Your task to perform on an android device: Open my contact list Image 0: 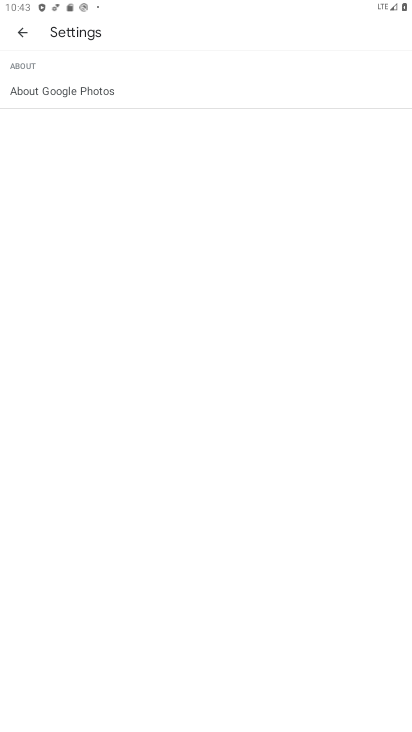
Step 0: press home button
Your task to perform on an android device: Open my contact list Image 1: 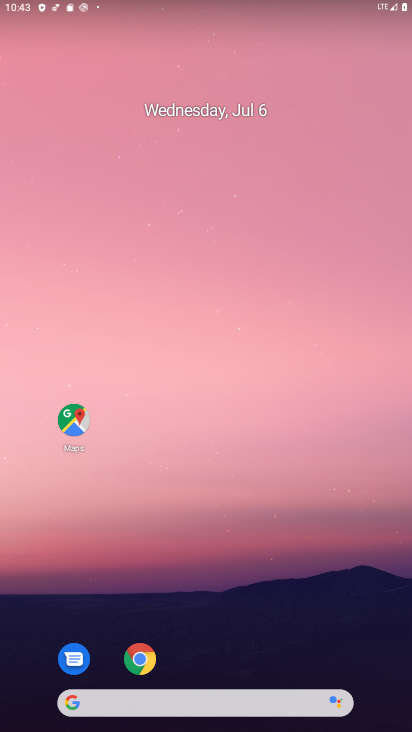
Step 1: drag from (147, 570) to (85, 15)
Your task to perform on an android device: Open my contact list Image 2: 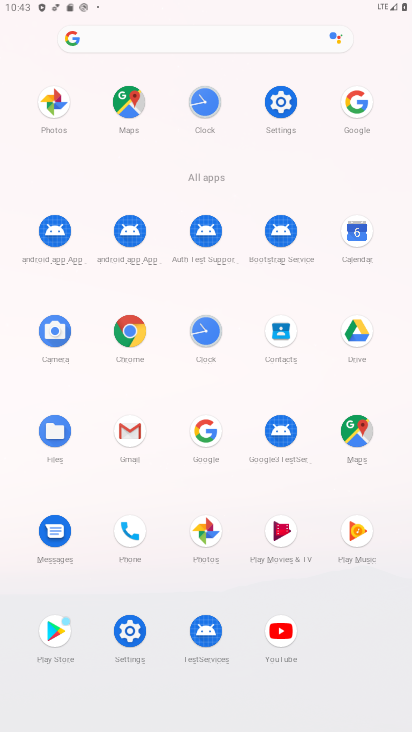
Step 2: click (306, 327)
Your task to perform on an android device: Open my contact list Image 3: 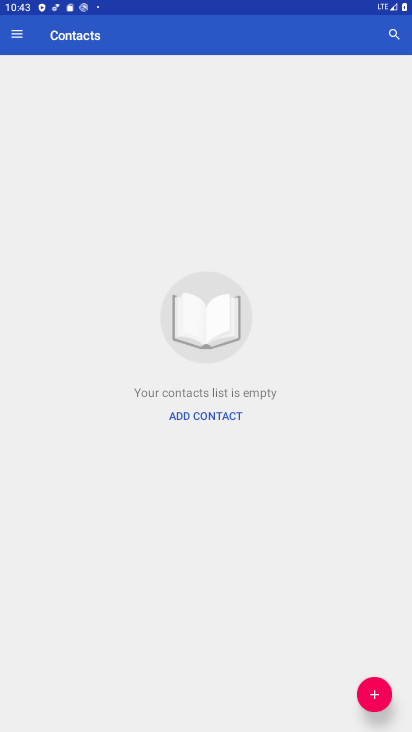
Step 3: click (15, 34)
Your task to perform on an android device: Open my contact list Image 4: 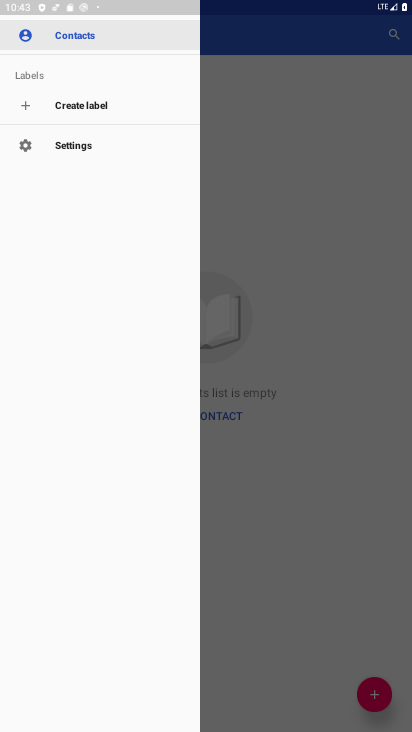
Step 4: task complete